Your task to perform on an android device: Go to eBay Image 0: 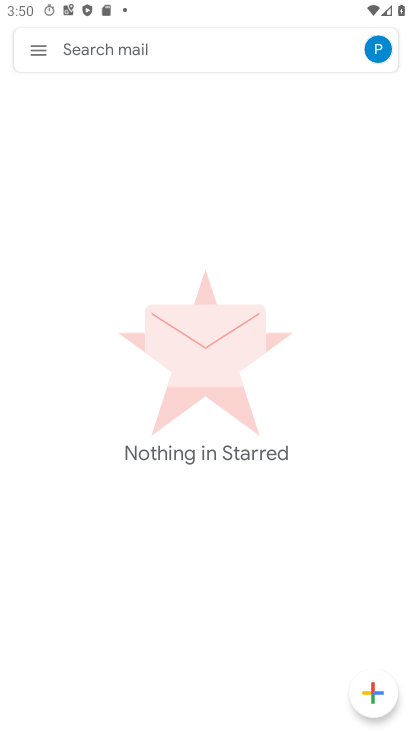
Step 0: press home button
Your task to perform on an android device: Go to eBay Image 1: 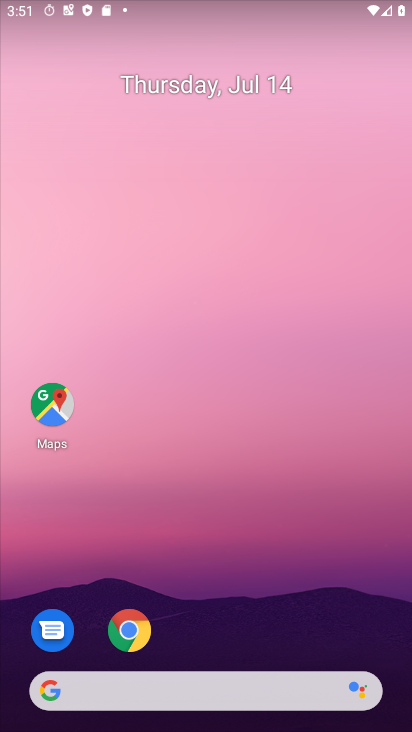
Step 1: drag from (198, 726) to (178, 35)
Your task to perform on an android device: Go to eBay Image 2: 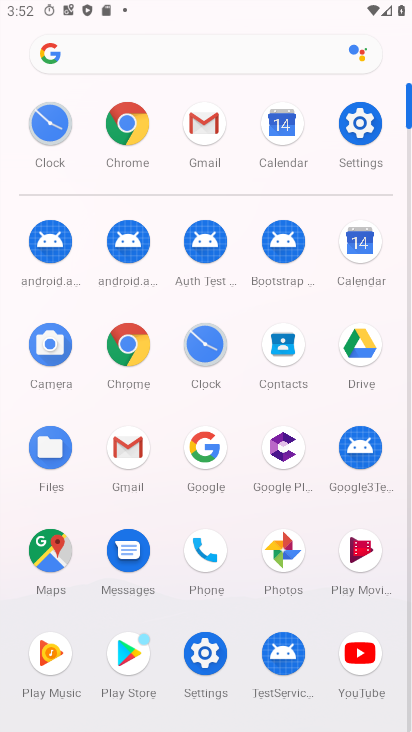
Step 2: click (127, 342)
Your task to perform on an android device: Go to eBay Image 3: 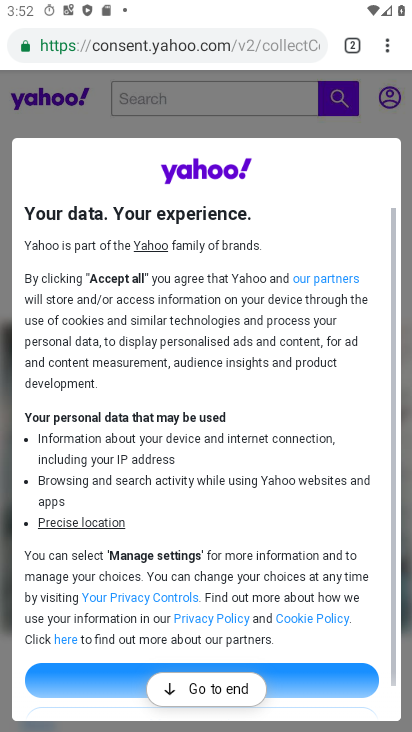
Step 3: click (386, 52)
Your task to perform on an android device: Go to eBay Image 4: 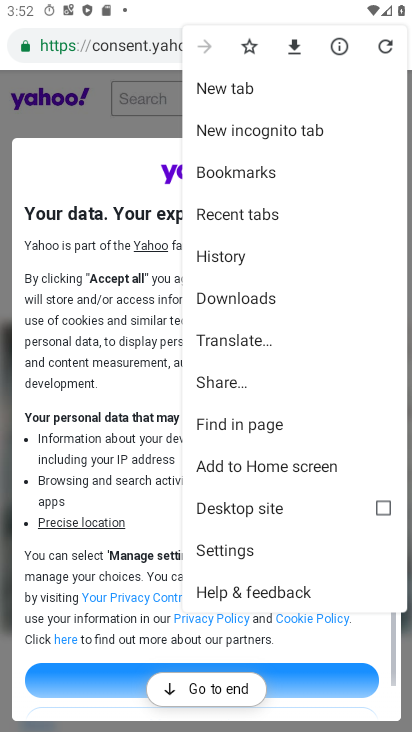
Step 4: click (228, 84)
Your task to perform on an android device: Go to eBay Image 5: 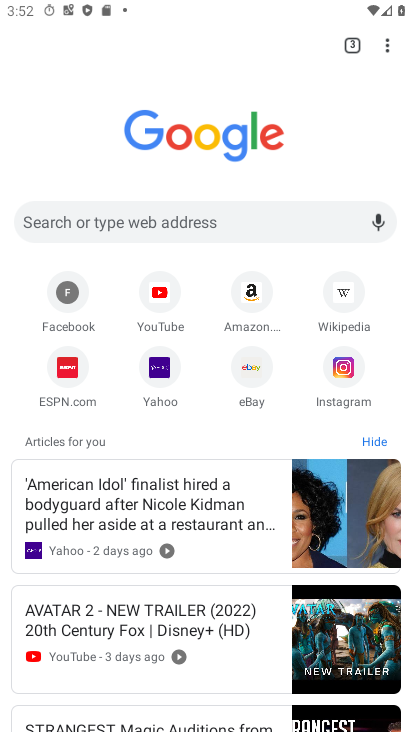
Step 5: click (248, 368)
Your task to perform on an android device: Go to eBay Image 6: 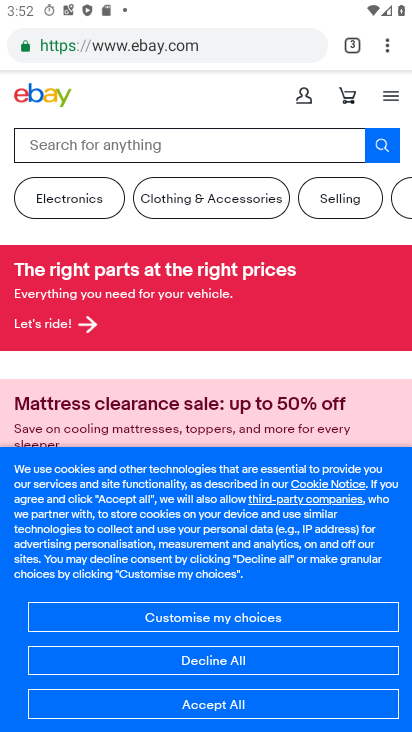
Step 6: task complete